Your task to perform on an android device: turn off picture-in-picture Image 0: 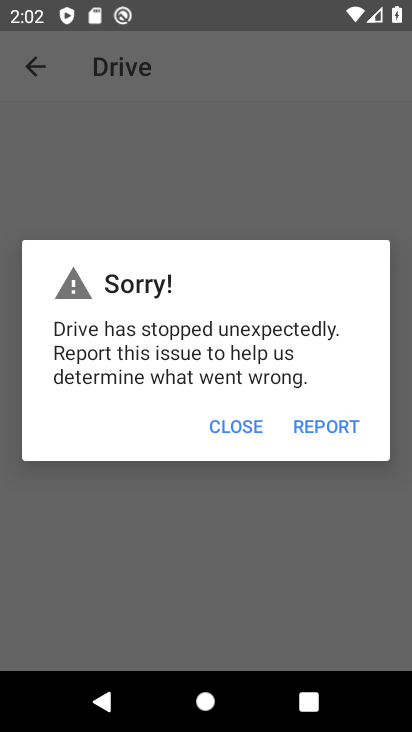
Step 0: press home button
Your task to perform on an android device: turn off picture-in-picture Image 1: 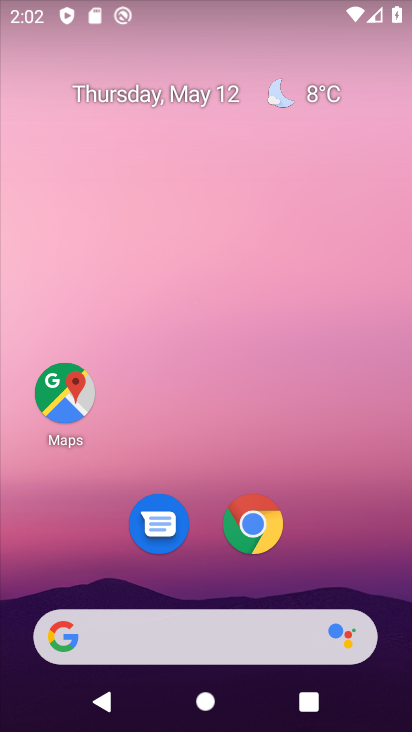
Step 1: drag from (204, 445) to (227, 61)
Your task to perform on an android device: turn off picture-in-picture Image 2: 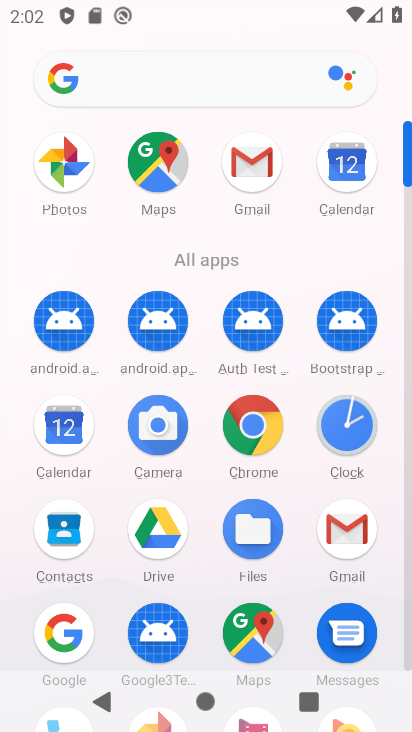
Step 2: click (253, 423)
Your task to perform on an android device: turn off picture-in-picture Image 3: 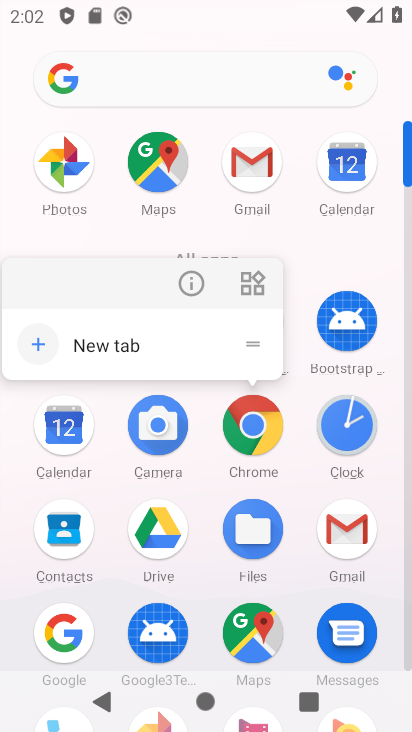
Step 3: click (194, 282)
Your task to perform on an android device: turn off picture-in-picture Image 4: 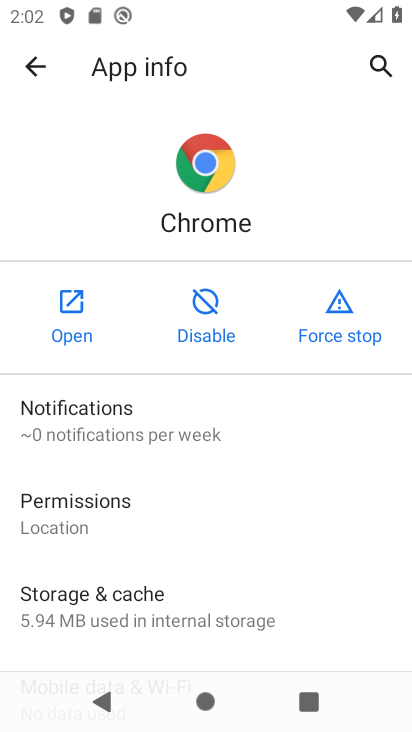
Step 4: drag from (274, 579) to (266, 130)
Your task to perform on an android device: turn off picture-in-picture Image 5: 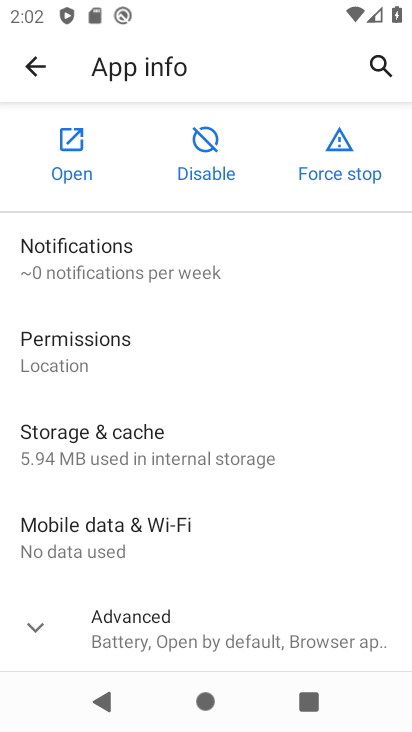
Step 5: click (28, 622)
Your task to perform on an android device: turn off picture-in-picture Image 6: 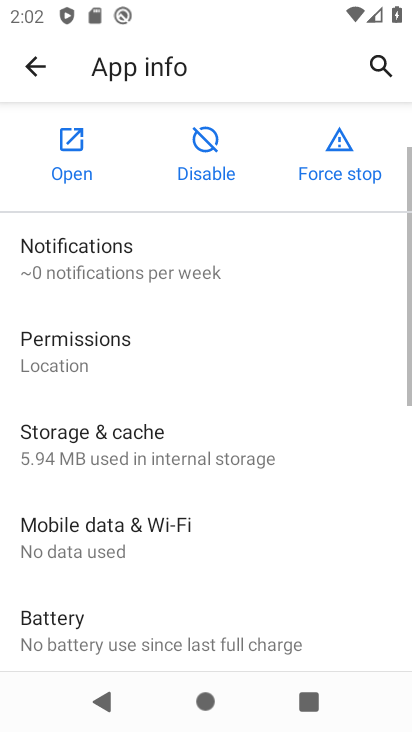
Step 6: drag from (186, 553) to (241, 237)
Your task to perform on an android device: turn off picture-in-picture Image 7: 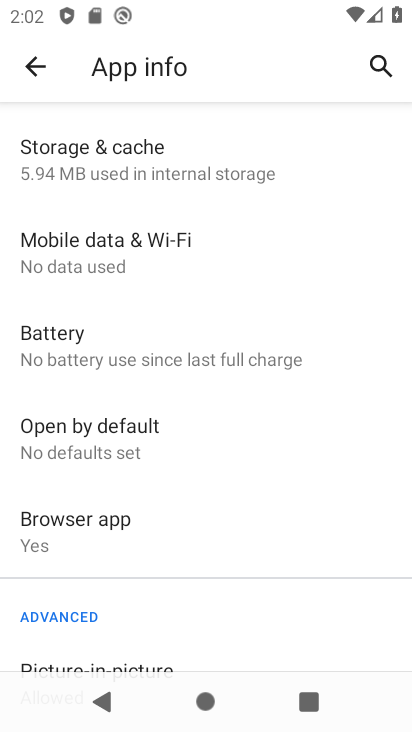
Step 7: drag from (219, 483) to (255, 248)
Your task to perform on an android device: turn off picture-in-picture Image 8: 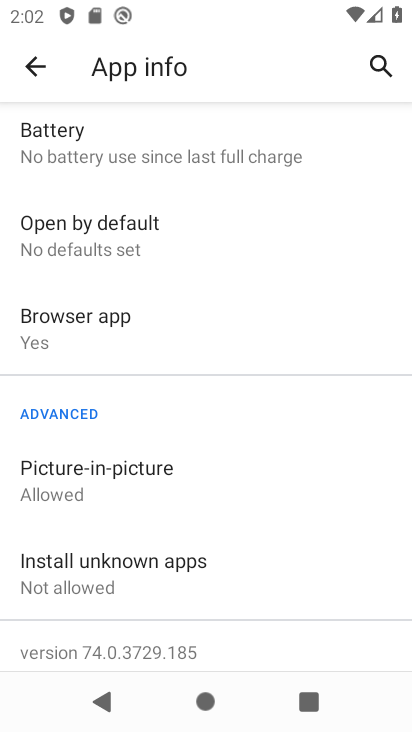
Step 8: click (149, 475)
Your task to perform on an android device: turn off picture-in-picture Image 9: 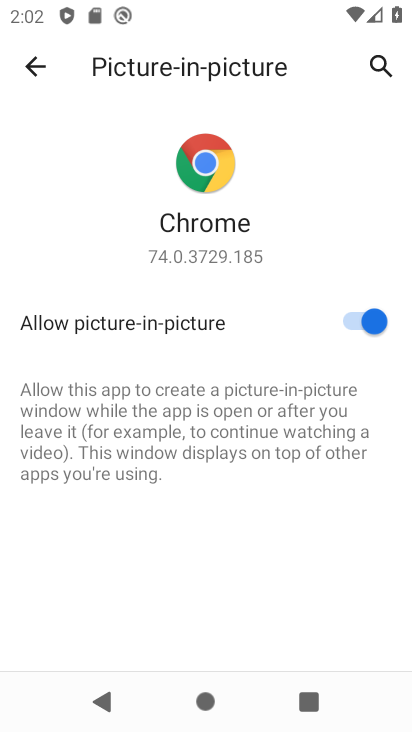
Step 9: click (360, 320)
Your task to perform on an android device: turn off picture-in-picture Image 10: 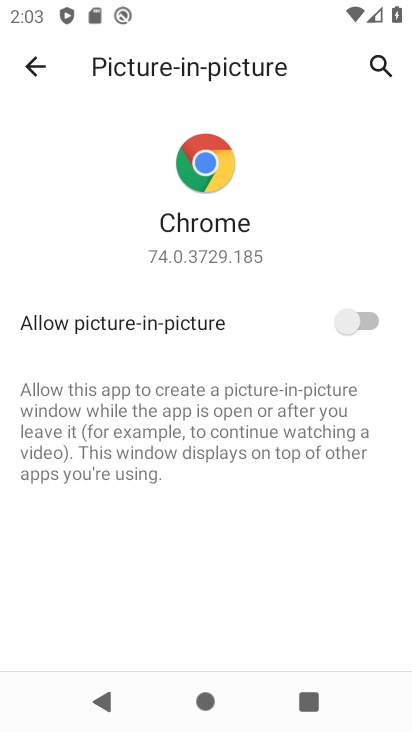
Step 10: task complete